Your task to perform on an android device: turn off javascript in the chrome app Image 0: 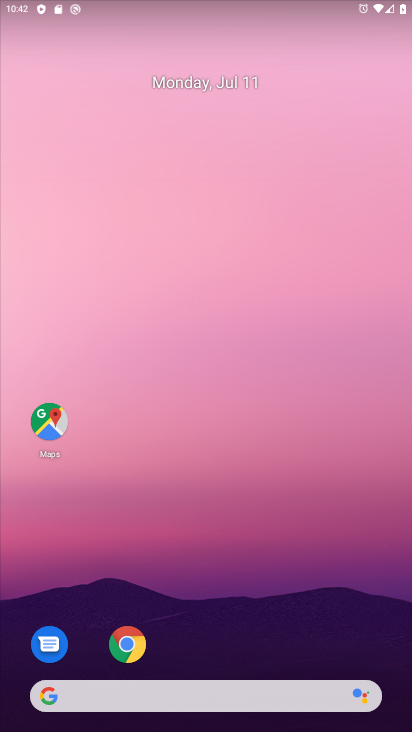
Step 0: click (126, 639)
Your task to perform on an android device: turn off javascript in the chrome app Image 1: 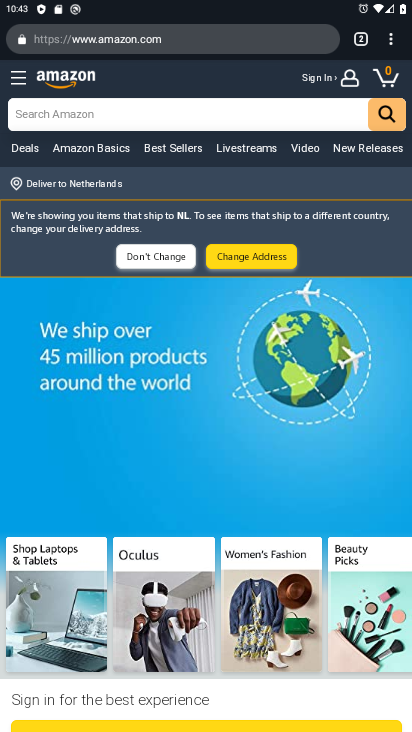
Step 1: drag from (396, 41) to (238, 465)
Your task to perform on an android device: turn off javascript in the chrome app Image 2: 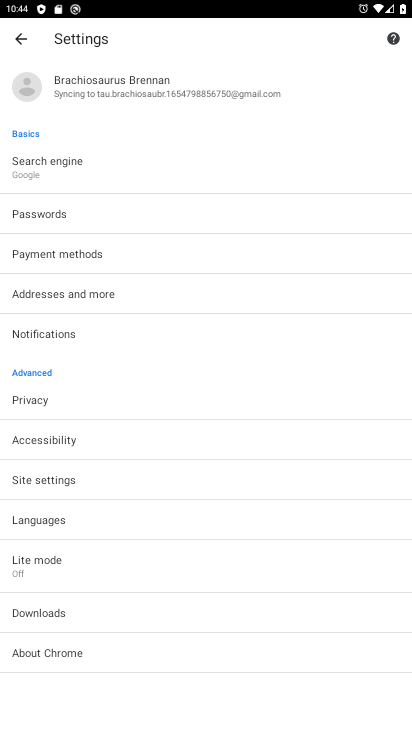
Step 2: click (48, 460)
Your task to perform on an android device: turn off javascript in the chrome app Image 3: 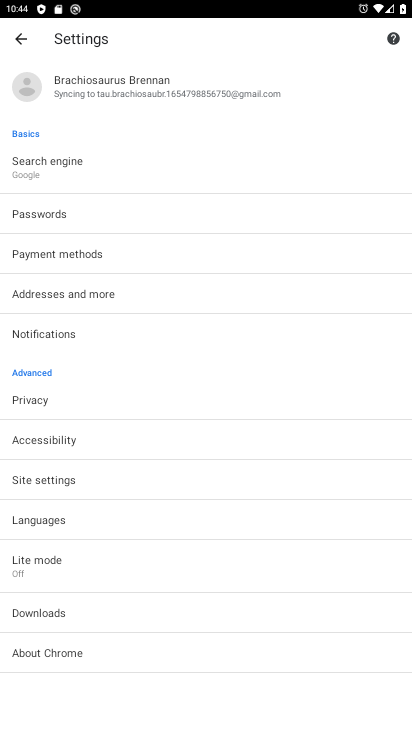
Step 3: click (48, 483)
Your task to perform on an android device: turn off javascript in the chrome app Image 4: 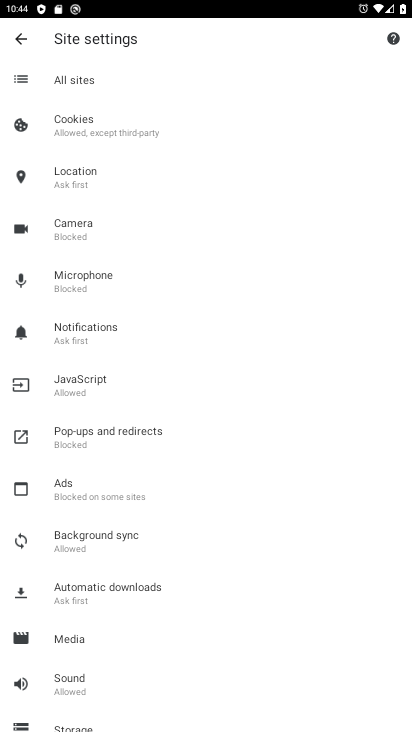
Step 4: click (12, 393)
Your task to perform on an android device: turn off javascript in the chrome app Image 5: 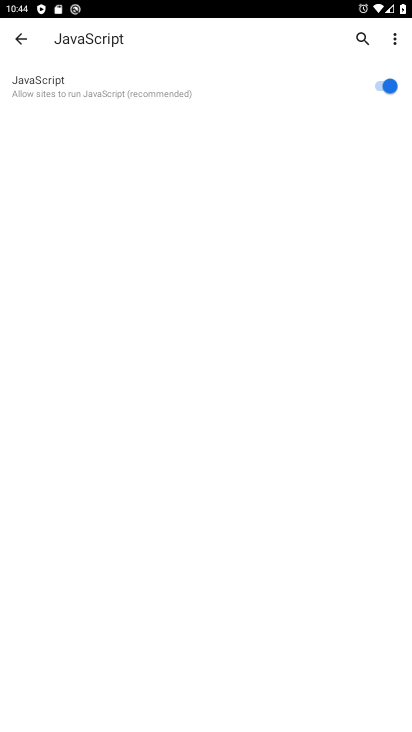
Step 5: click (95, 96)
Your task to perform on an android device: turn off javascript in the chrome app Image 6: 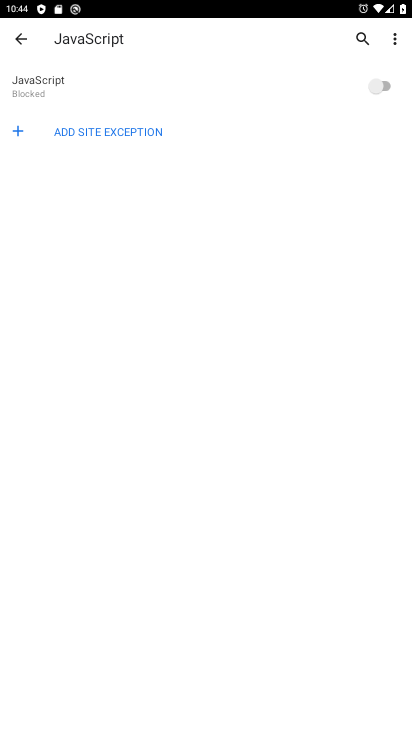
Step 6: task complete